Your task to perform on an android device: Open Youtube and go to "Your channel" Image 0: 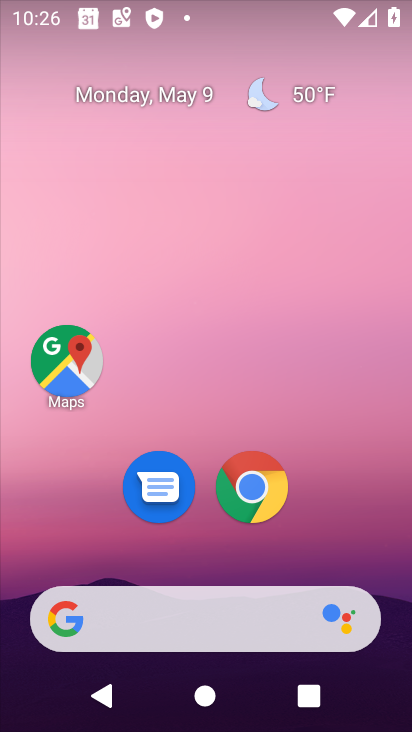
Step 0: drag from (69, 538) to (212, 300)
Your task to perform on an android device: Open Youtube and go to "Your channel" Image 1: 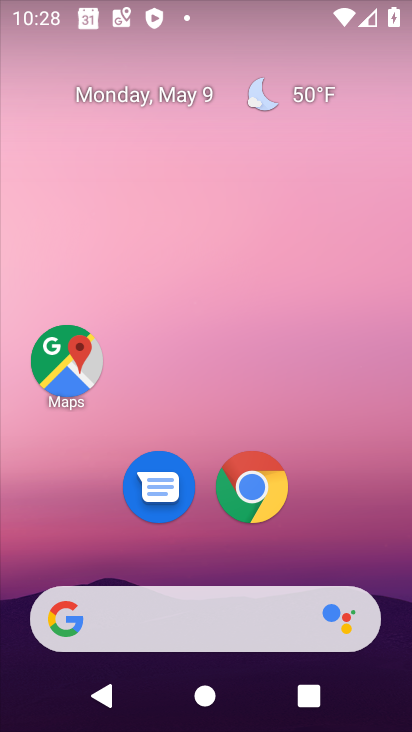
Step 1: task complete